Your task to perform on an android device: Turn on the flashlight Image 0: 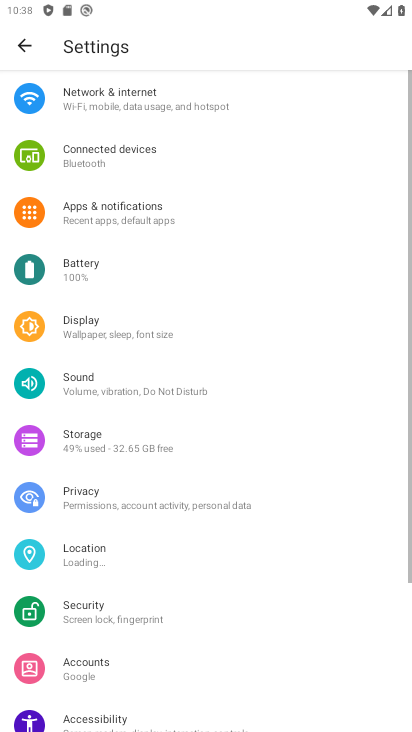
Step 0: press home button
Your task to perform on an android device: Turn on the flashlight Image 1: 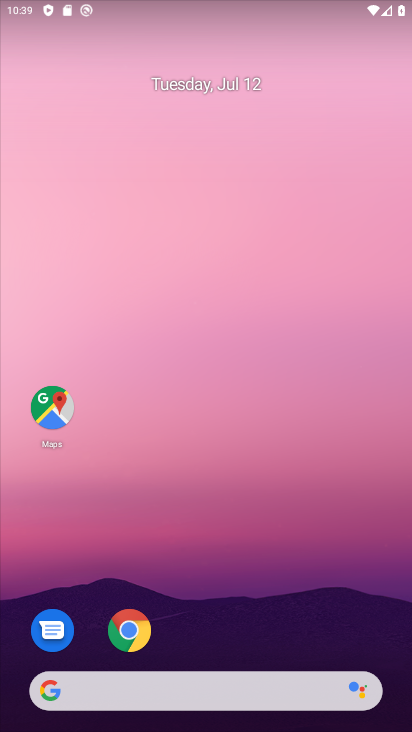
Step 1: drag from (362, 558) to (116, 3)
Your task to perform on an android device: Turn on the flashlight Image 2: 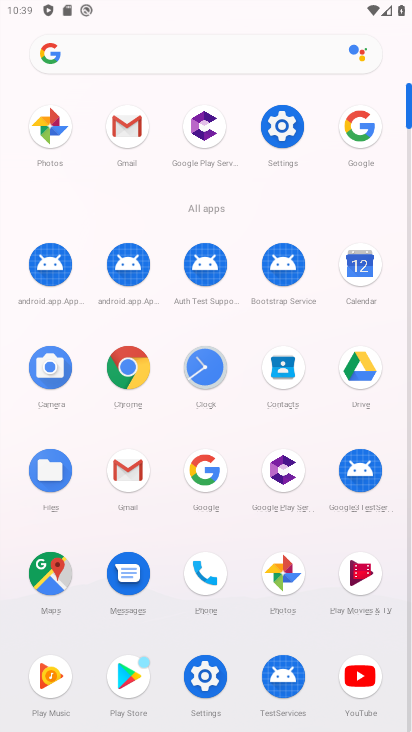
Step 2: click (284, 133)
Your task to perform on an android device: Turn on the flashlight Image 3: 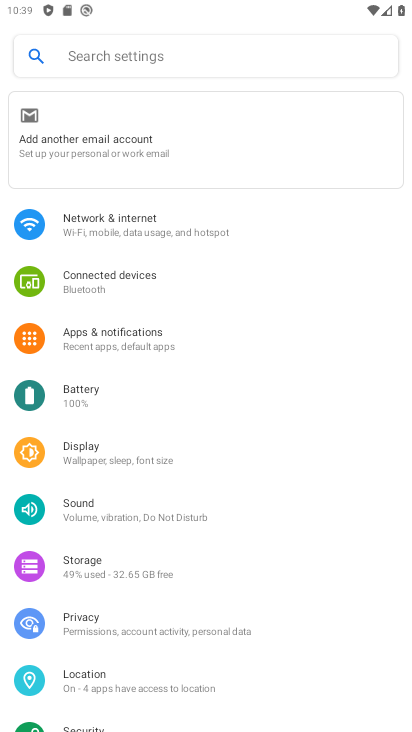
Step 3: task complete